Your task to perform on an android device: Go to accessibility settings Image 0: 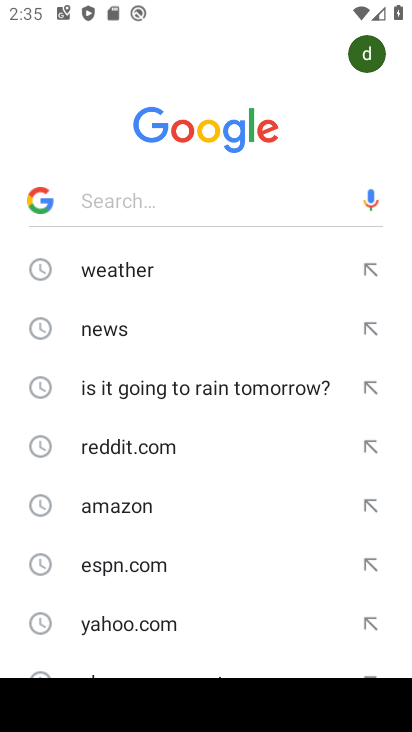
Step 0: press back button
Your task to perform on an android device: Go to accessibility settings Image 1: 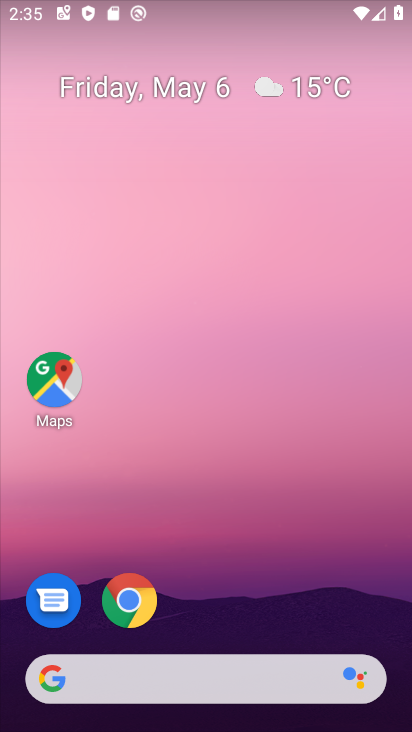
Step 1: drag from (211, 540) to (172, 42)
Your task to perform on an android device: Go to accessibility settings Image 2: 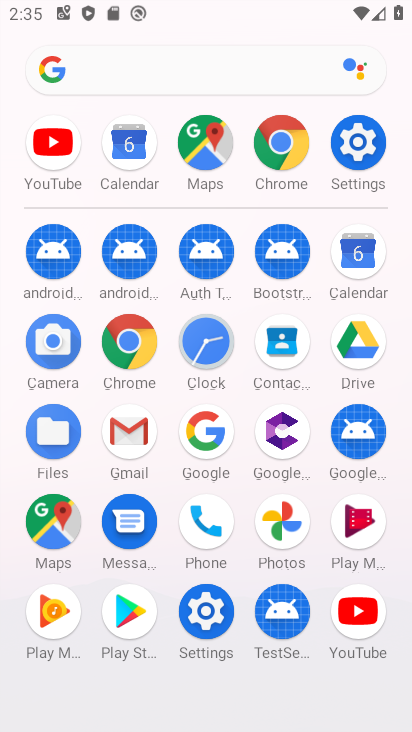
Step 2: drag from (14, 619) to (4, 284)
Your task to perform on an android device: Go to accessibility settings Image 3: 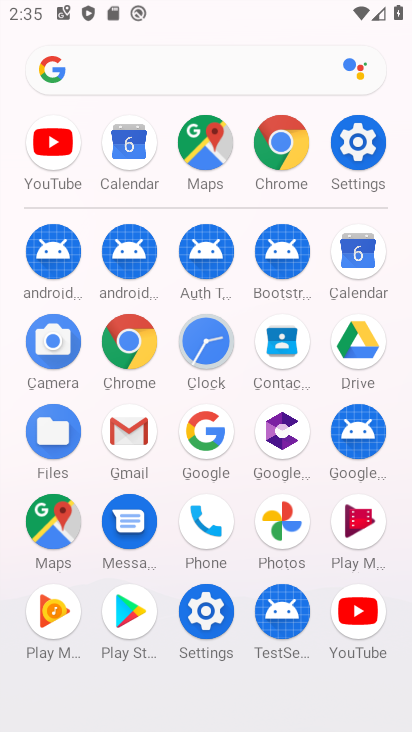
Step 3: click (204, 609)
Your task to perform on an android device: Go to accessibility settings Image 4: 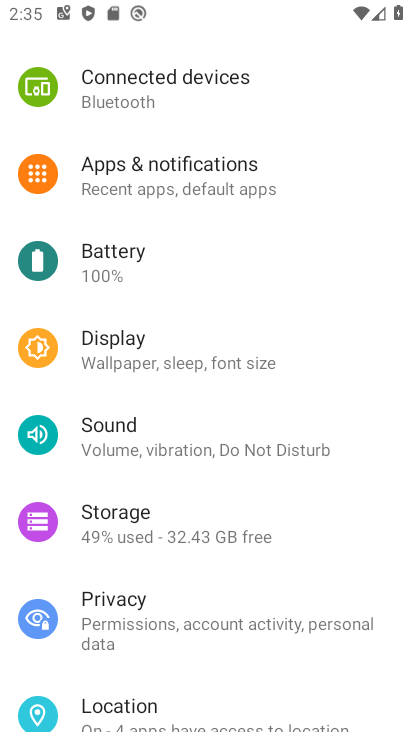
Step 4: drag from (359, 610) to (341, 127)
Your task to perform on an android device: Go to accessibility settings Image 5: 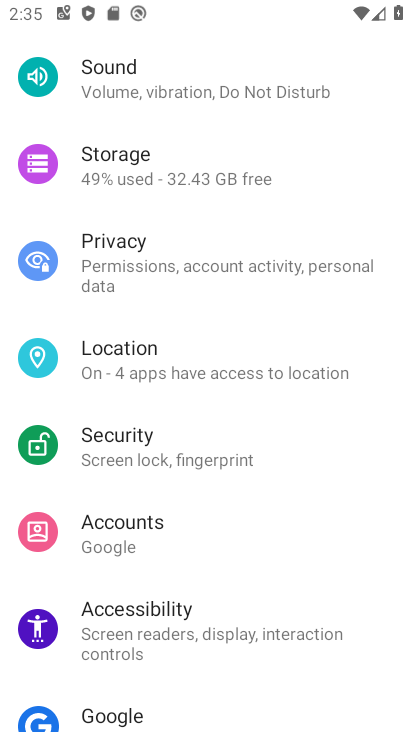
Step 5: drag from (373, 572) to (364, 107)
Your task to perform on an android device: Go to accessibility settings Image 6: 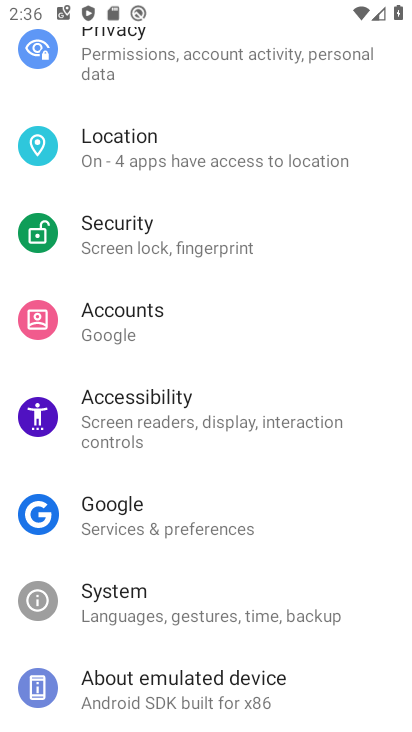
Step 6: click (194, 421)
Your task to perform on an android device: Go to accessibility settings Image 7: 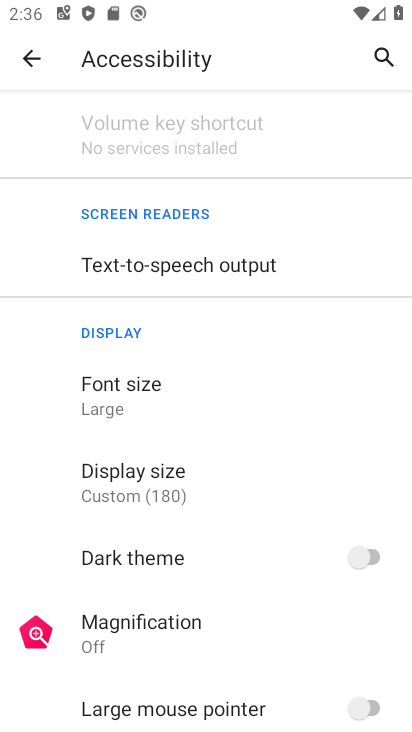
Step 7: task complete